Your task to perform on an android device: delete the emails in spam in the gmail app Image 0: 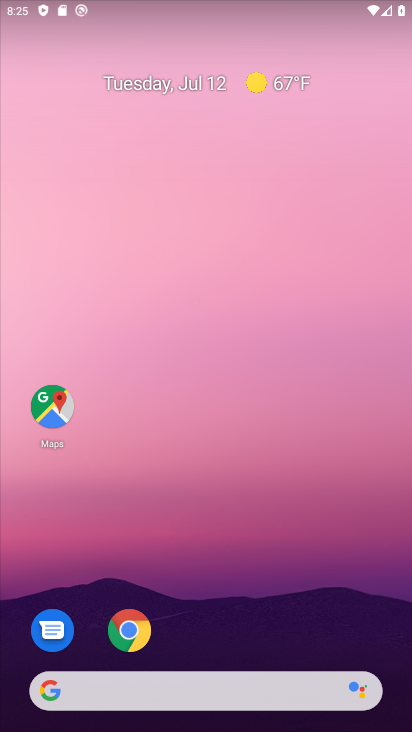
Step 0: drag from (203, 637) to (154, 168)
Your task to perform on an android device: delete the emails in spam in the gmail app Image 1: 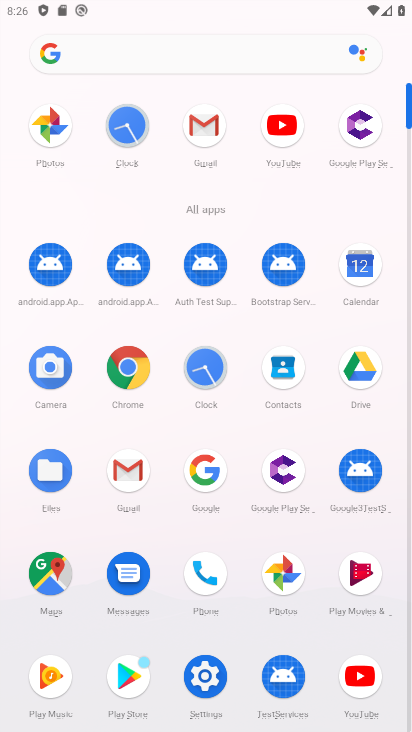
Step 1: click (205, 135)
Your task to perform on an android device: delete the emails in spam in the gmail app Image 2: 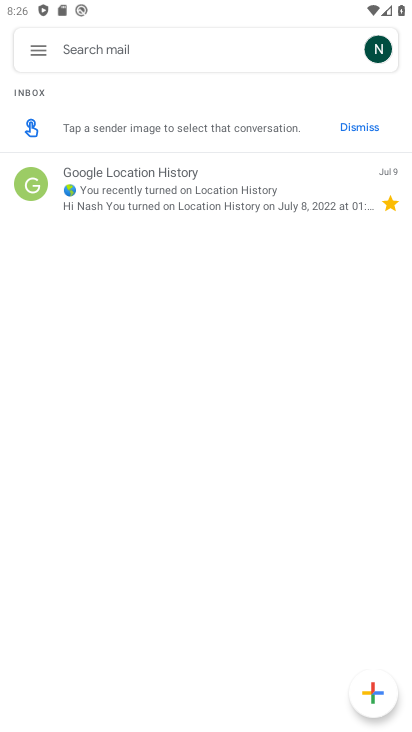
Step 2: click (45, 55)
Your task to perform on an android device: delete the emails in spam in the gmail app Image 3: 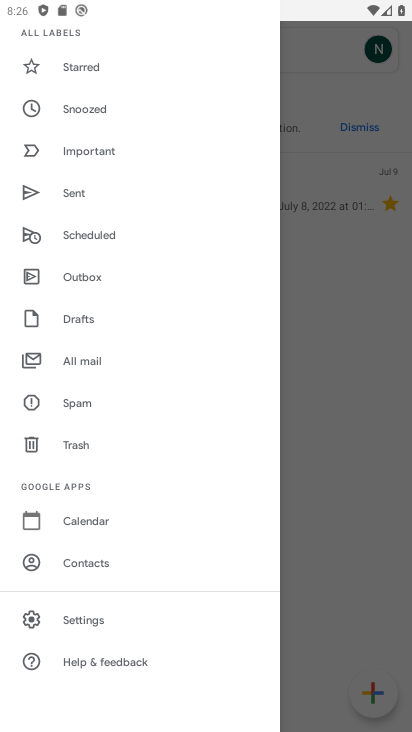
Step 3: click (59, 414)
Your task to perform on an android device: delete the emails in spam in the gmail app Image 4: 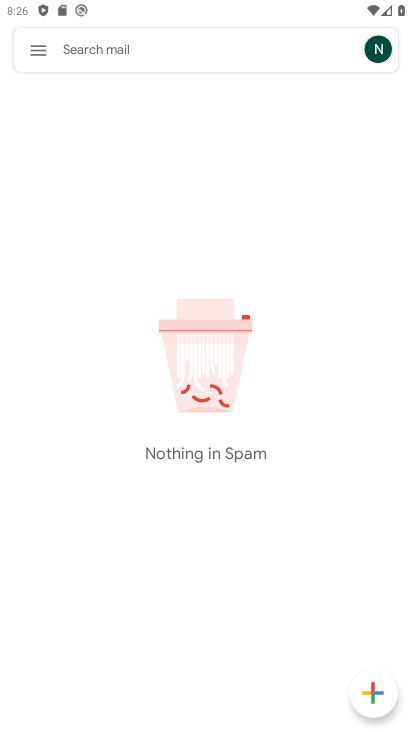
Step 4: task complete